Your task to perform on an android device: turn notification dots on Image 0: 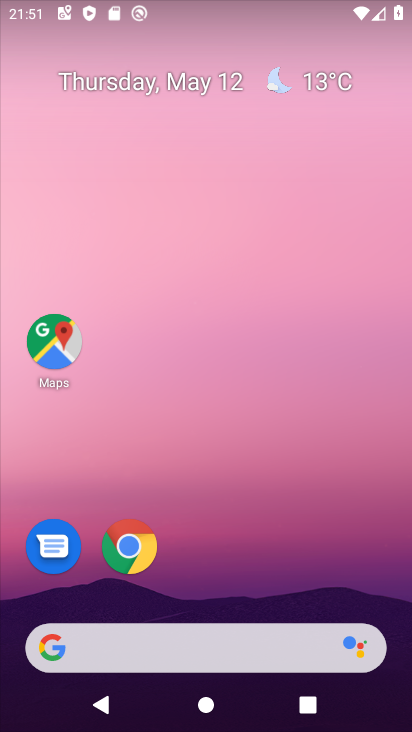
Step 0: drag from (249, 557) to (304, 6)
Your task to perform on an android device: turn notification dots on Image 1: 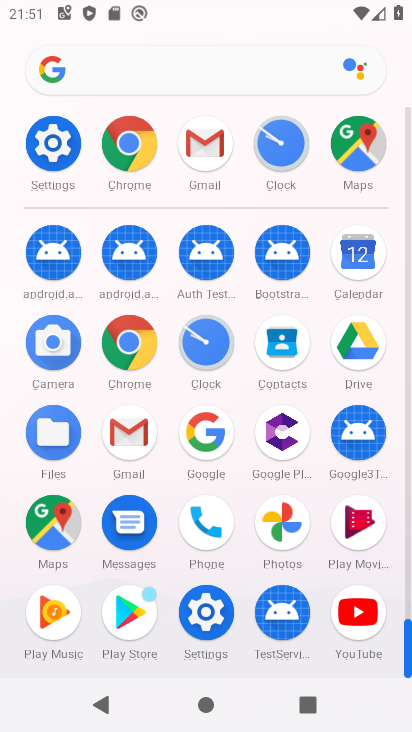
Step 1: click (220, 604)
Your task to perform on an android device: turn notification dots on Image 2: 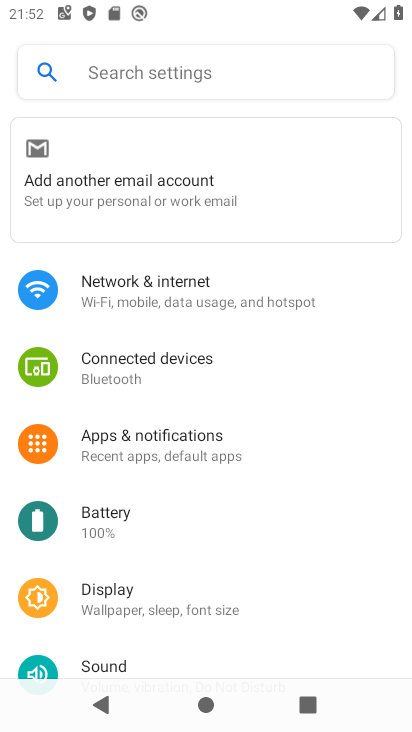
Step 2: click (194, 443)
Your task to perform on an android device: turn notification dots on Image 3: 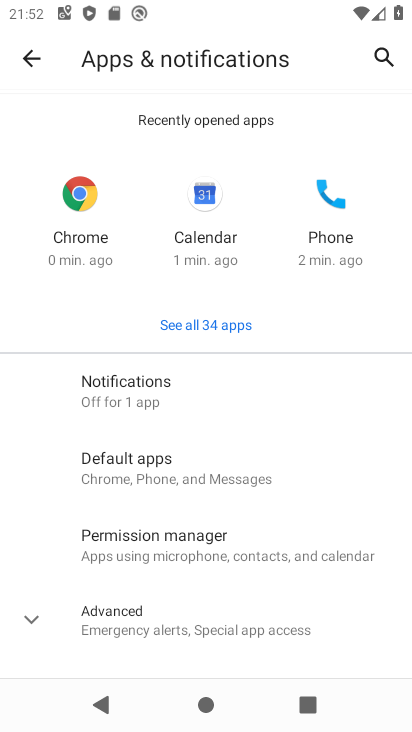
Step 3: drag from (303, 575) to (297, 337)
Your task to perform on an android device: turn notification dots on Image 4: 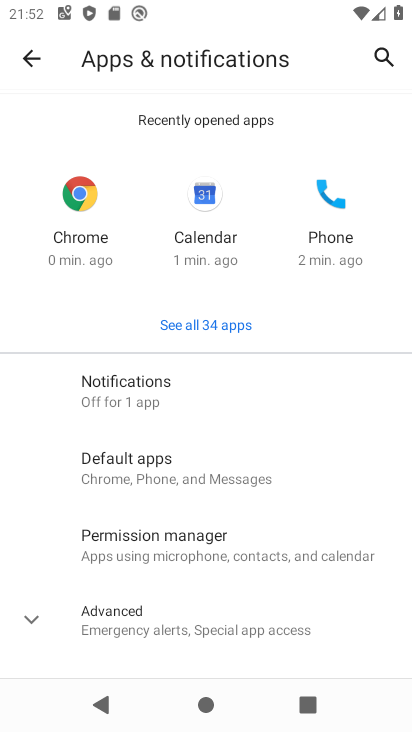
Step 4: click (202, 626)
Your task to perform on an android device: turn notification dots on Image 5: 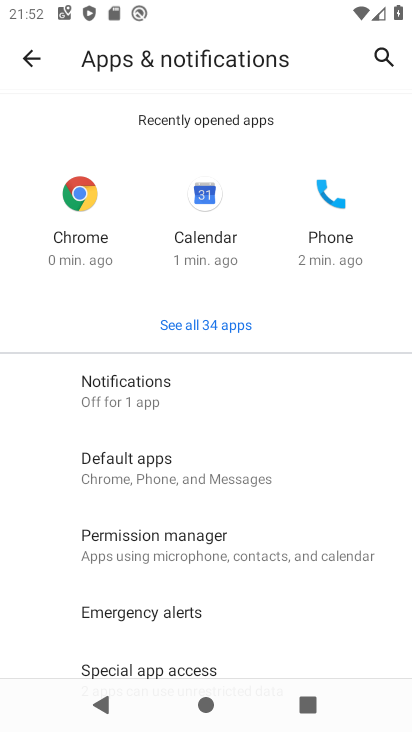
Step 5: drag from (282, 631) to (328, 295)
Your task to perform on an android device: turn notification dots on Image 6: 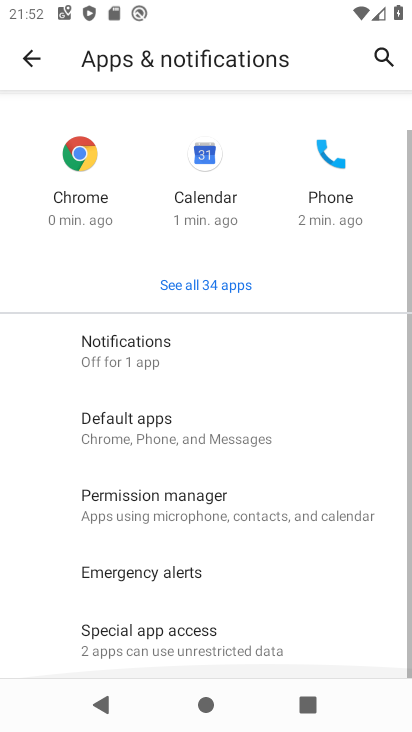
Step 6: drag from (330, 618) to (321, 287)
Your task to perform on an android device: turn notification dots on Image 7: 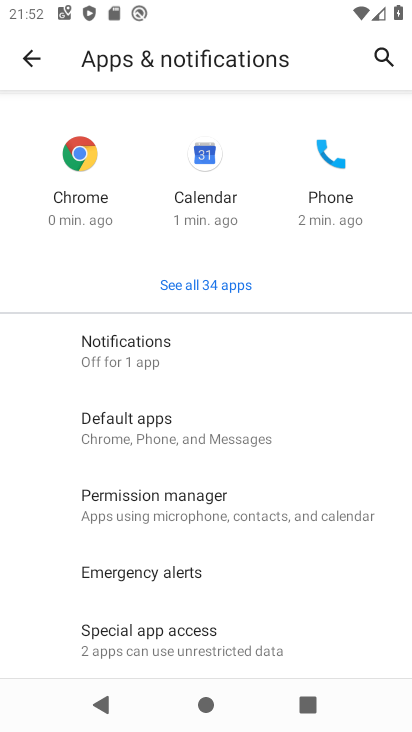
Step 7: click (91, 340)
Your task to perform on an android device: turn notification dots on Image 8: 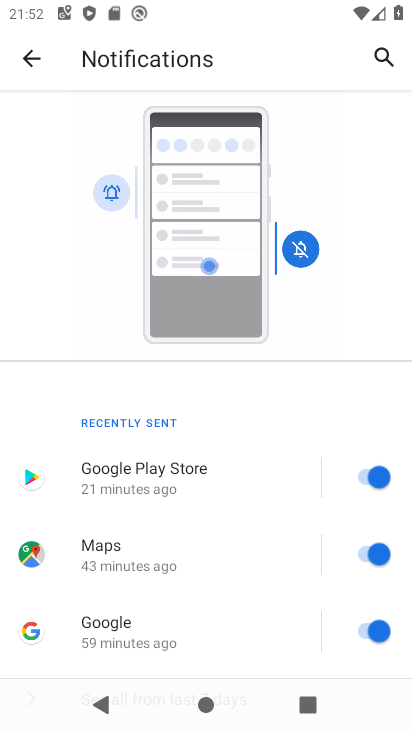
Step 8: drag from (286, 606) to (324, 152)
Your task to perform on an android device: turn notification dots on Image 9: 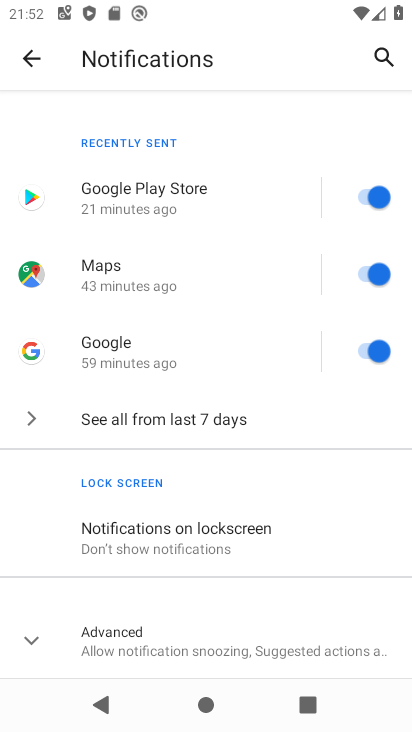
Step 9: click (157, 645)
Your task to perform on an android device: turn notification dots on Image 10: 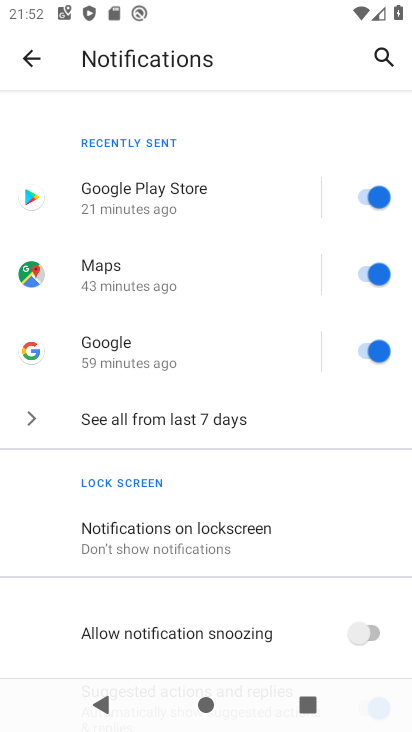
Step 10: task complete